Your task to perform on an android device: What's the weather going to be tomorrow? Image 0: 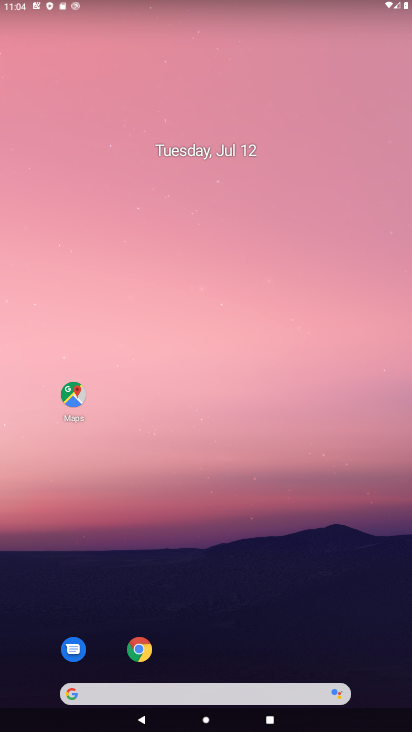
Step 0: drag from (4, 284) to (402, 323)
Your task to perform on an android device: What's the weather going to be tomorrow? Image 1: 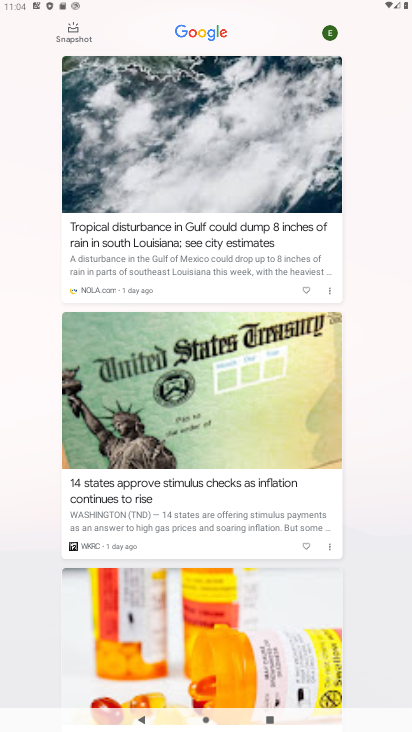
Step 1: drag from (200, 112) to (183, 325)
Your task to perform on an android device: What's the weather going to be tomorrow? Image 2: 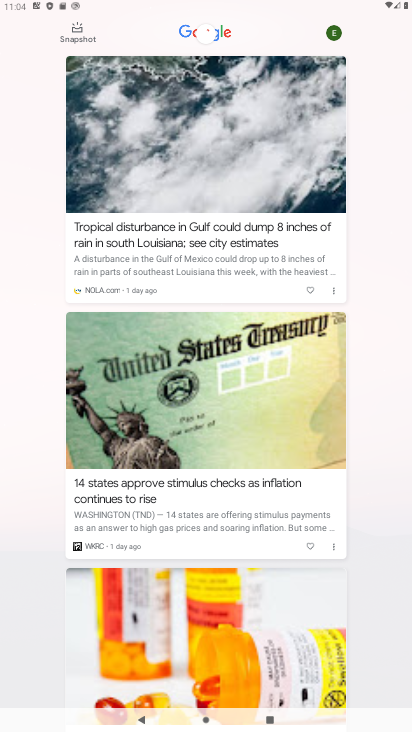
Step 2: drag from (389, 376) to (36, 370)
Your task to perform on an android device: What's the weather going to be tomorrow? Image 3: 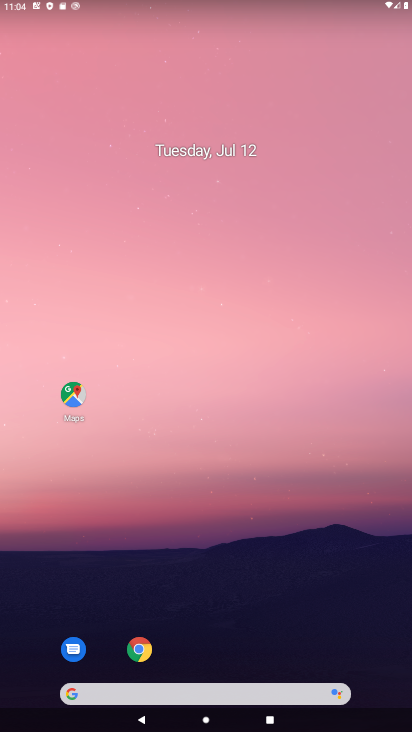
Step 3: click (153, 694)
Your task to perform on an android device: What's the weather going to be tomorrow? Image 4: 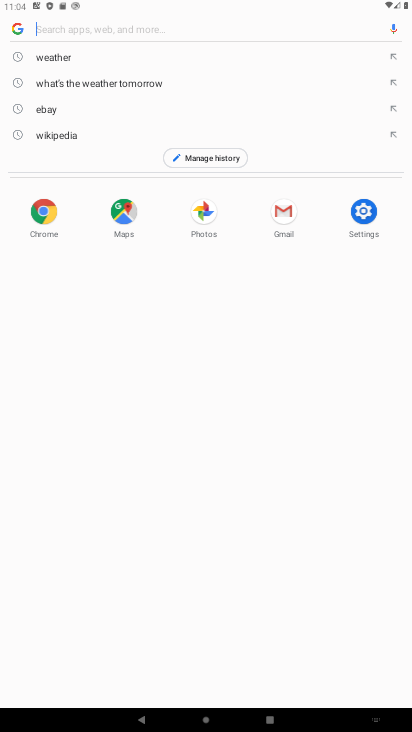
Step 4: click (53, 53)
Your task to perform on an android device: What's the weather going to be tomorrow? Image 5: 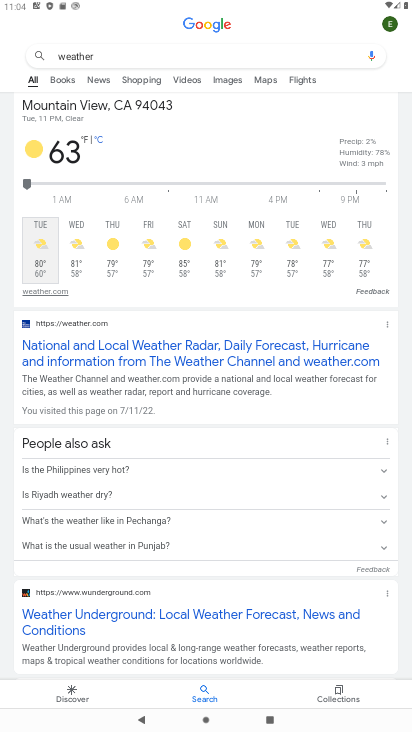
Step 5: click (79, 345)
Your task to perform on an android device: What's the weather going to be tomorrow? Image 6: 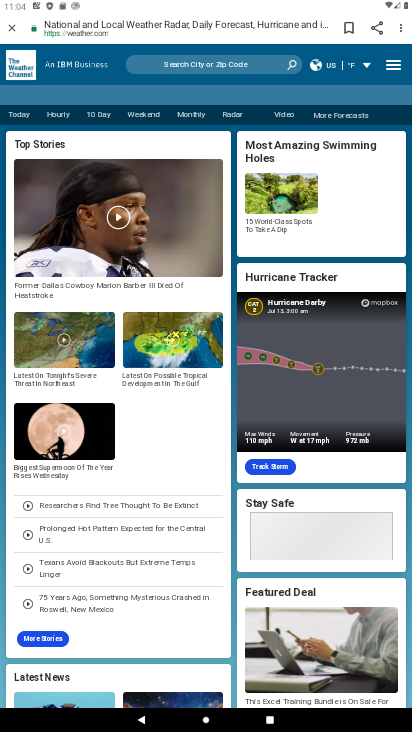
Step 6: task complete